Your task to perform on an android device: Open the web browser Image 0: 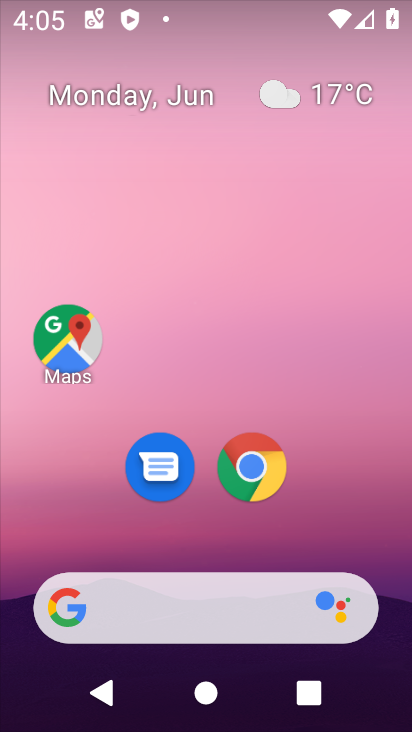
Step 0: click (268, 459)
Your task to perform on an android device: Open the web browser Image 1: 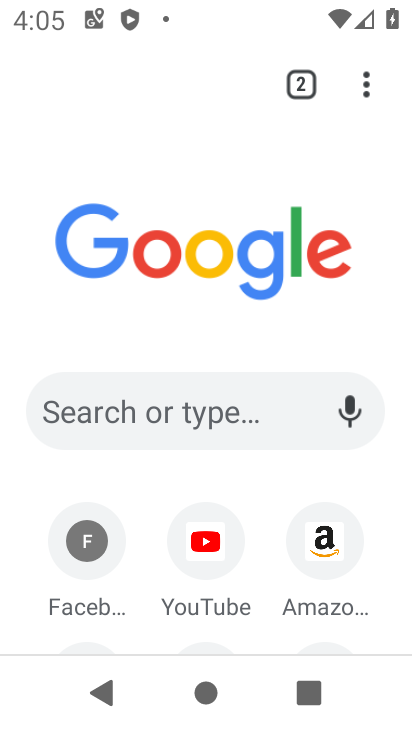
Step 1: task complete